Your task to perform on an android device: Go to display settings Image 0: 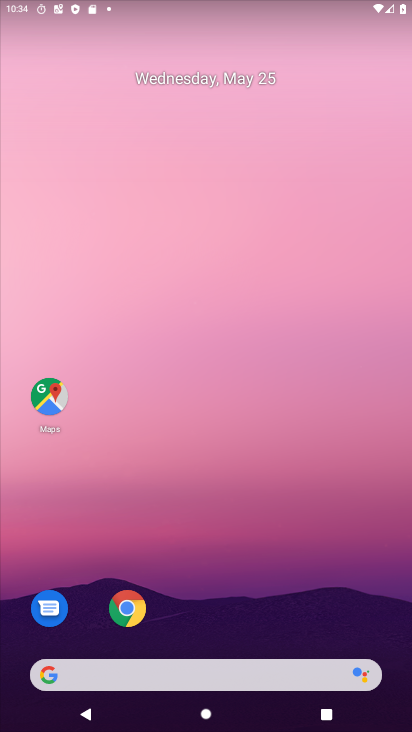
Step 0: drag from (228, 615) to (204, 230)
Your task to perform on an android device: Go to display settings Image 1: 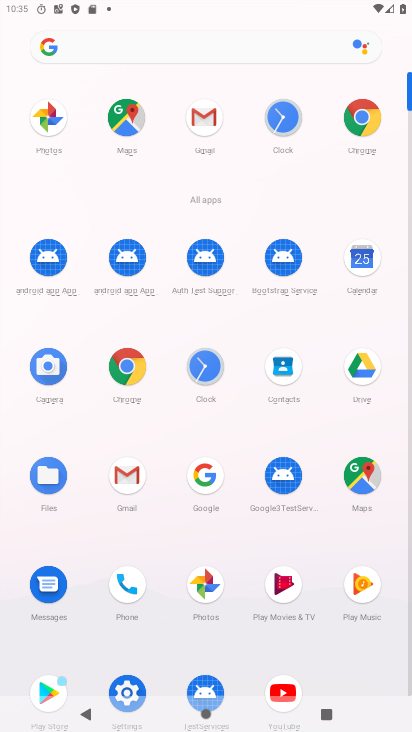
Step 1: click (127, 686)
Your task to perform on an android device: Go to display settings Image 2: 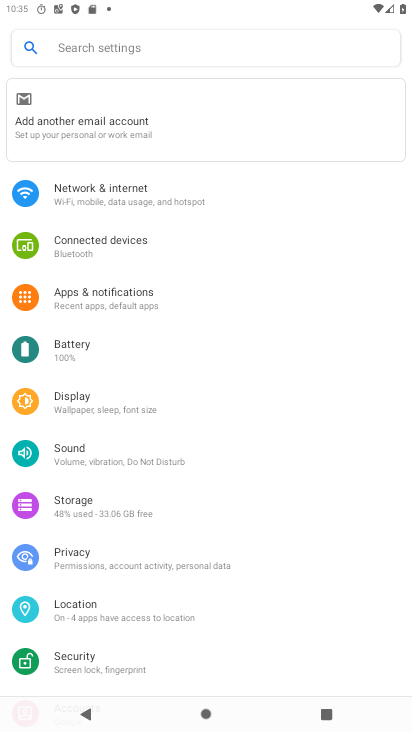
Step 2: click (135, 419)
Your task to perform on an android device: Go to display settings Image 3: 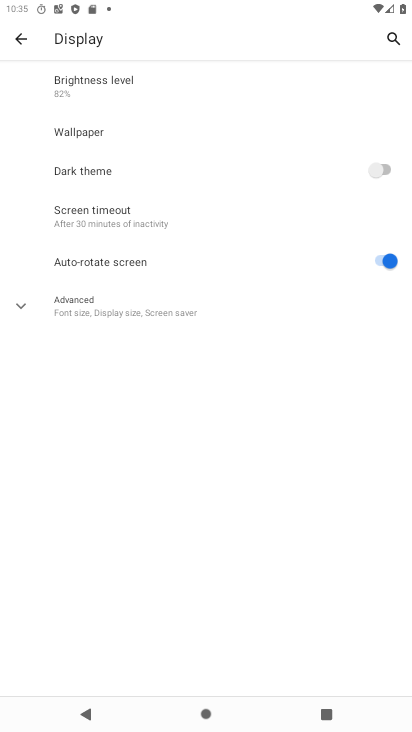
Step 3: task complete